Your task to perform on an android device: Open sound settings Image 0: 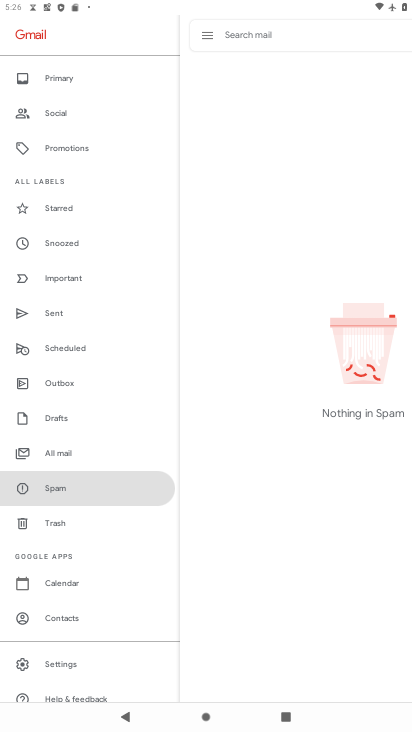
Step 0: press home button
Your task to perform on an android device: Open sound settings Image 1: 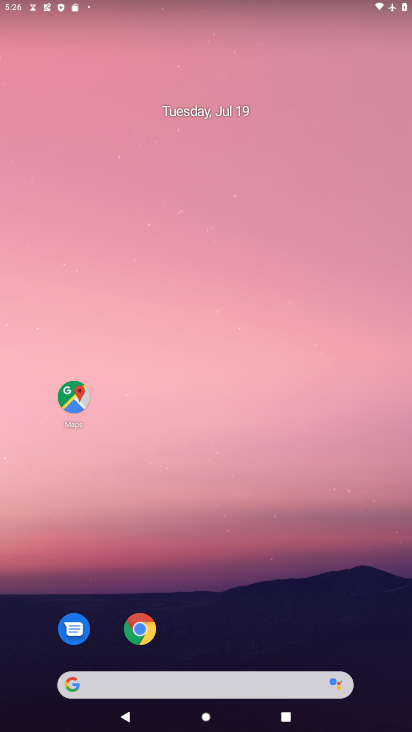
Step 1: drag from (242, 138) to (244, 36)
Your task to perform on an android device: Open sound settings Image 2: 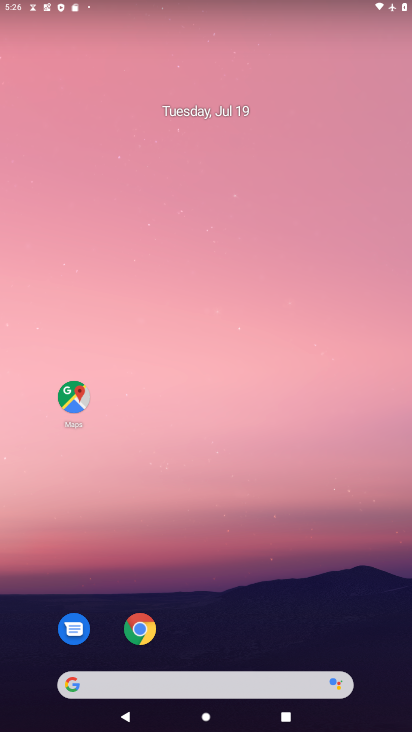
Step 2: drag from (250, 623) to (177, 3)
Your task to perform on an android device: Open sound settings Image 3: 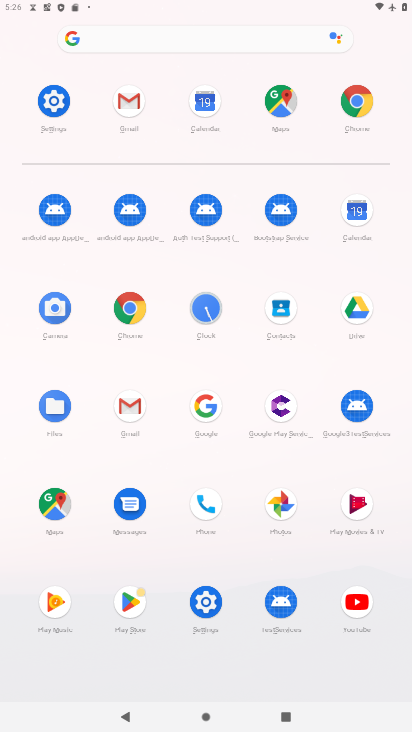
Step 3: click (62, 102)
Your task to perform on an android device: Open sound settings Image 4: 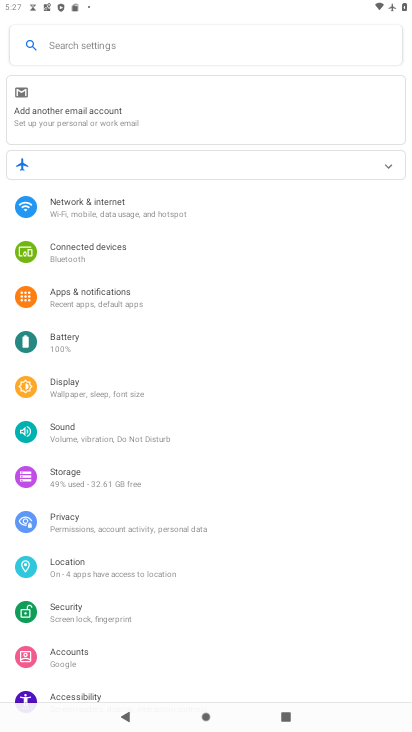
Step 4: click (62, 436)
Your task to perform on an android device: Open sound settings Image 5: 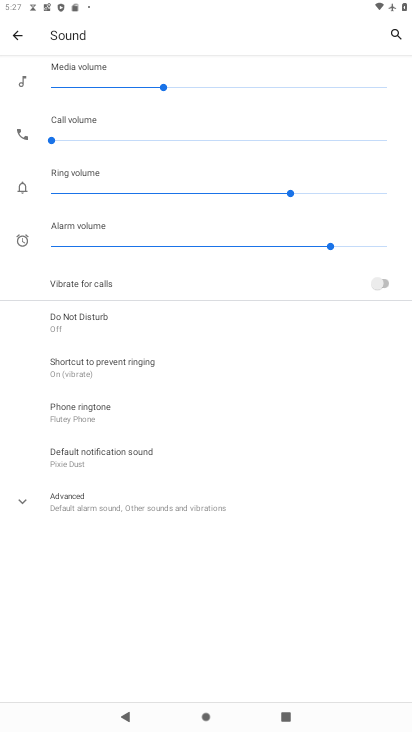
Step 5: task complete